Your task to perform on an android device: change text size in settings app Image 0: 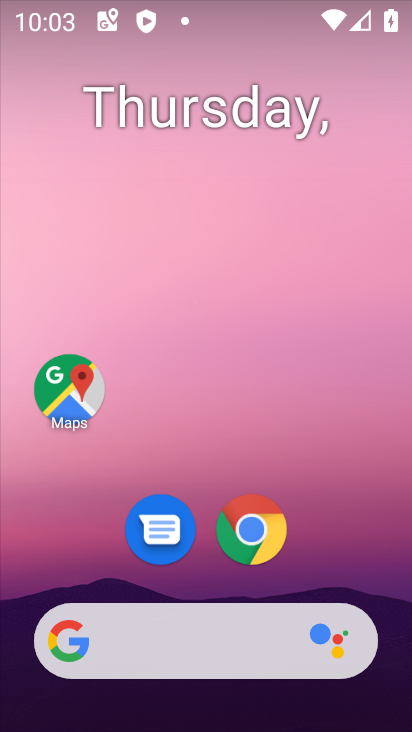
Step 0: drag from (324, 514) to (332, 0)
Your task to perform on an android device: change text size in settings app Image 1: 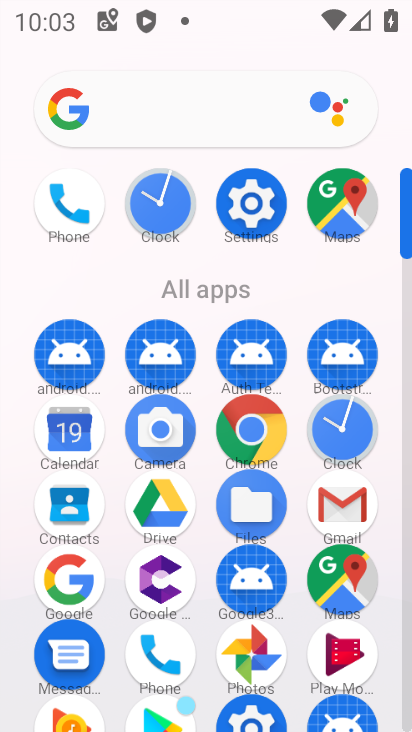
Step 1: click (243, 203)
Your task to perform on an android device: change text size in settings app Image 2: 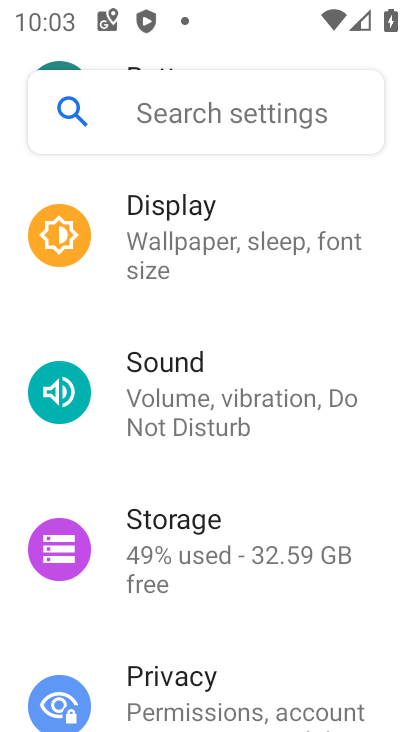
Step 2: click (201, 260)
Your task to perform on an android device: change text size in settings app Image 3: 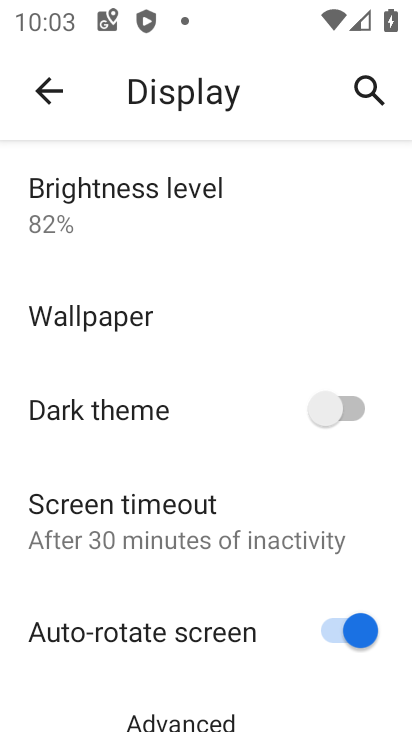
Step 3: drag from (101, 533) to (170, 241)
Your task to perform on an android device: change text size in settings app Image 4: 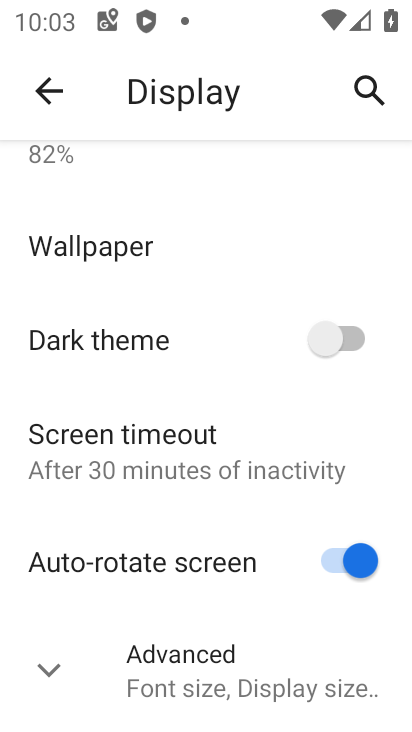
Step 4: click (180, 650)
Your task to perform on an android device: change text size in settings app Image 5: 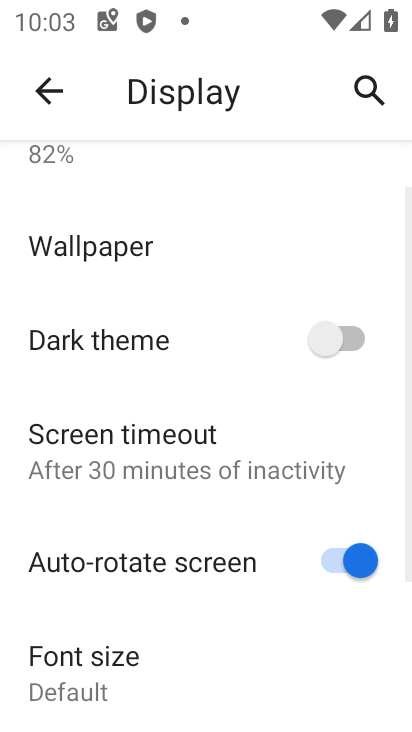
Step 5: drag from (183, 717) to (238, 431)
Your task to perform on an android device: change text size in settings app Image 6: 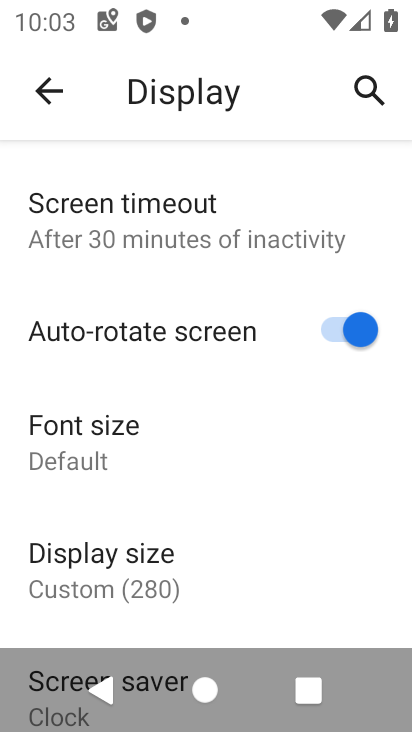
Step 6: click (144, 439)
Your task to perform on an android device: change text size in settings app Image 7: 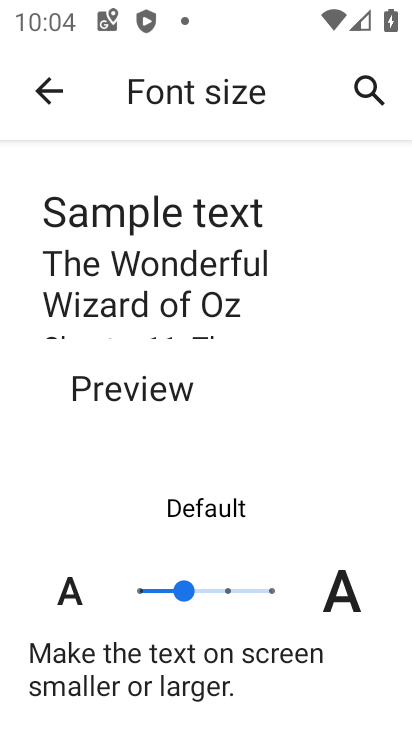
Step 7: click (227, 587)
Your task to perform on an android device: change text size in settings app Image 8: 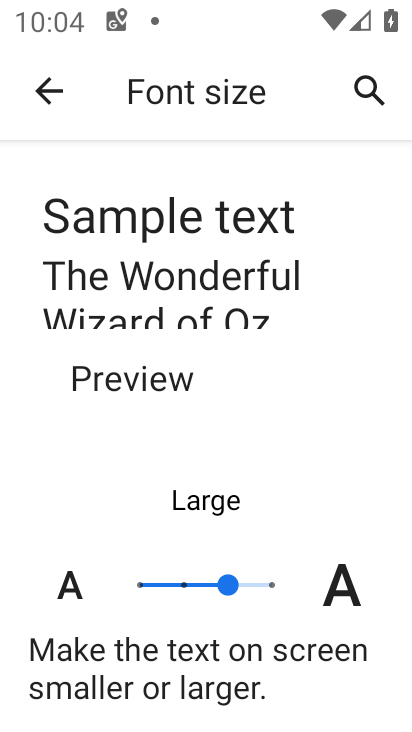
Step 8: task complete